Your task to perform on an android device: What's the weather? Image 0: 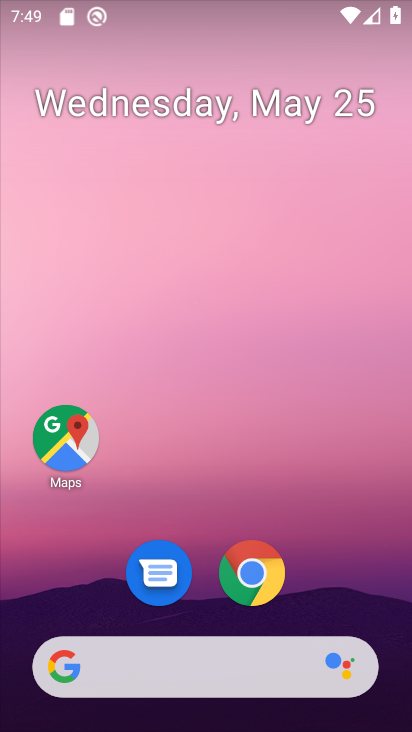
Step 0: drag from (2, 257) to (384, 220)
Your task to perform on an android device: What's the weather? Image 1: 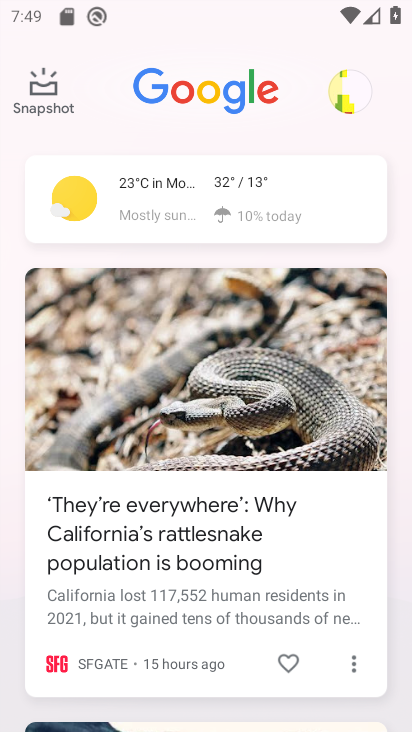
Step 1: click (231, 181)
Your task to perform on an android device: What's the weather? Image 2: 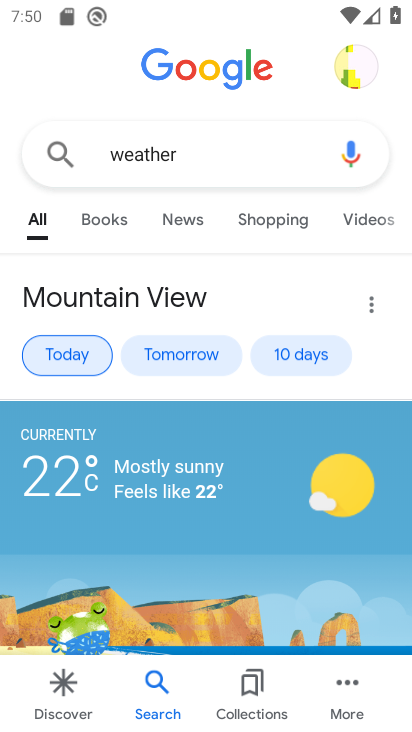
Step 2: click (76, 365)
Your task to perform on an android device: What's the weather? Image 3: 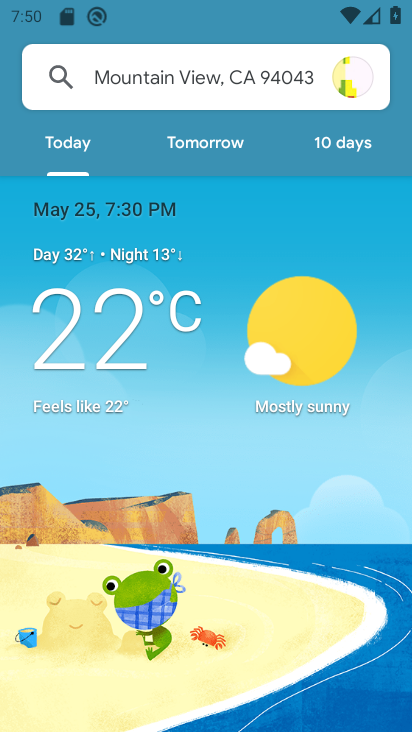
Step 3: task complete